Your task to perform on an android device: Show me popular games on the Play Store Image 0: 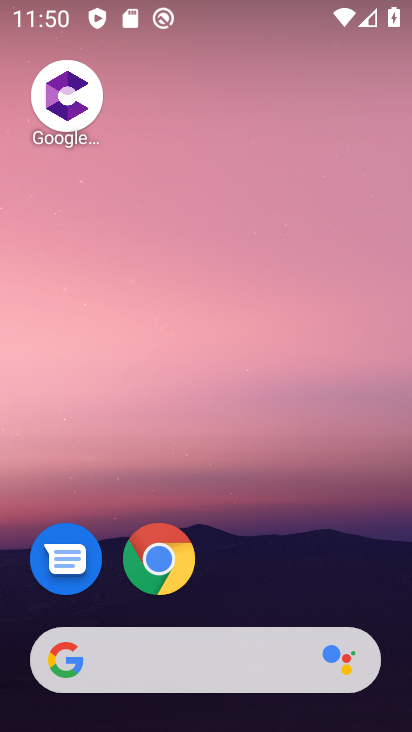
Step 0: drag from (206, 606) to (263, 69)
Your task to perform on an android device: Show me popular games on the Play Store Image 1: 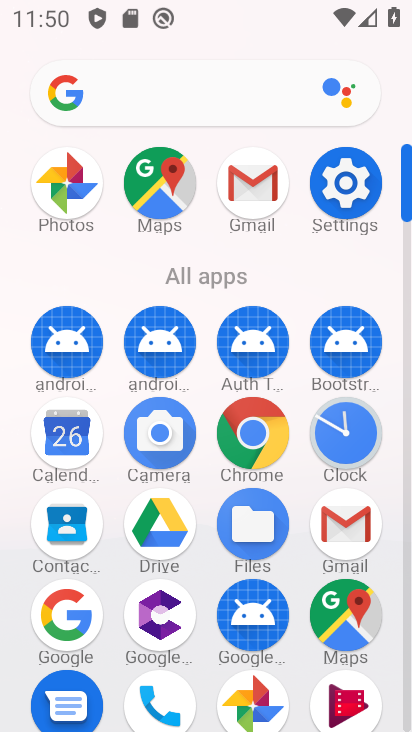
Step 1: drag from (188, 581) to (267, 107)
Your task to perform on an android device: Show me popular games on the Play Store Image 2: 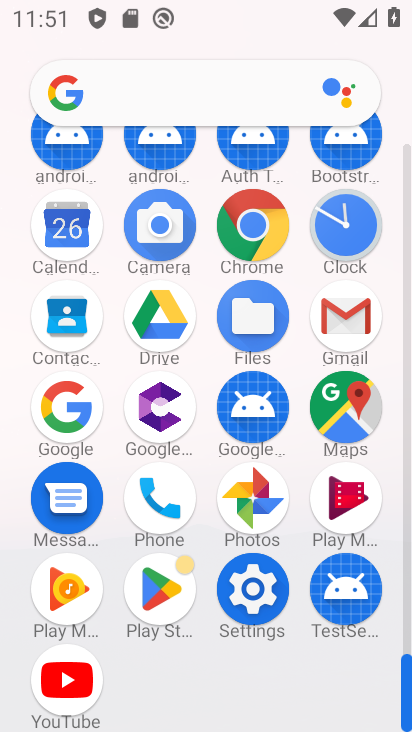
Step 2: click (158, 610)
Your task to perform on an android device: Show me popular games on the Play Store Image 3: 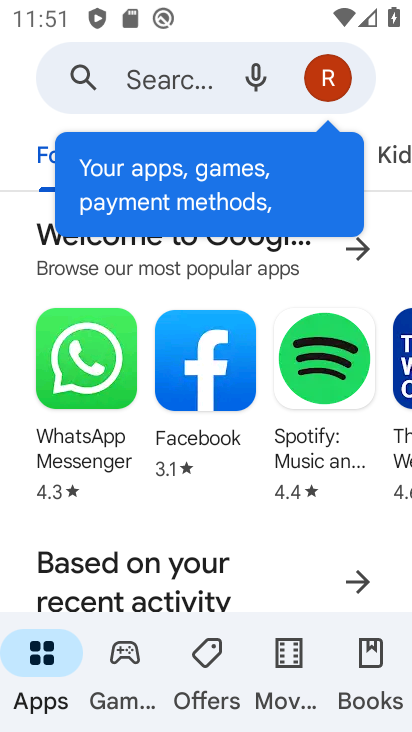
Step 3: click (117, 670)
Your task to perform on an android device: Show me popular games on the Play Store Image 4: 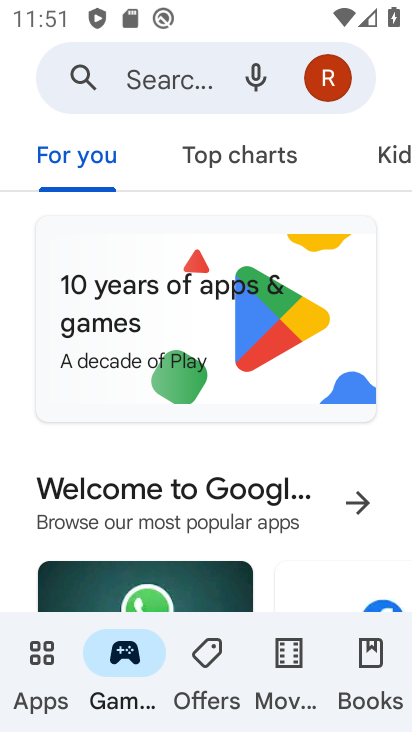
Step 4: drag from (160, 580) to (281, 103)
Your task to perform on an android device: Show me popular games on the Play Store Image 5: 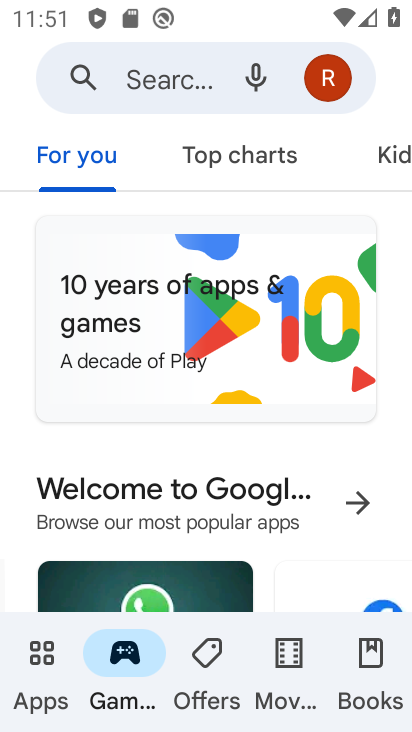
Step 5: drag from (173, 565) to (307, 52)
Your task to perform on an android device: Show me popular games on the Play Store Image 6: 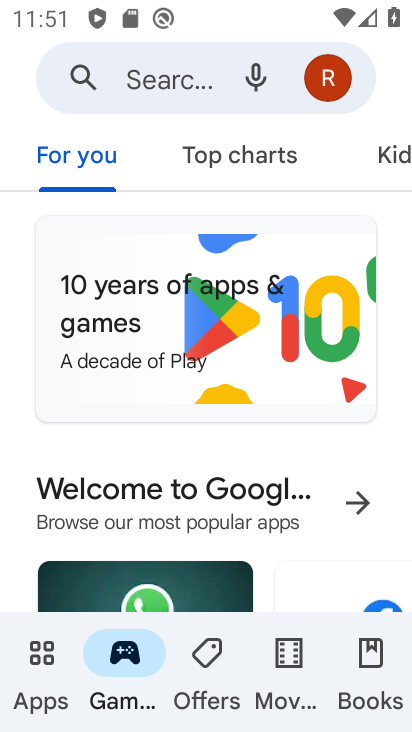
Step 6: drag from (349, 558) to (397, 92)
Your task to perform on an android device: Show me popular games on the Play Store Image 7: 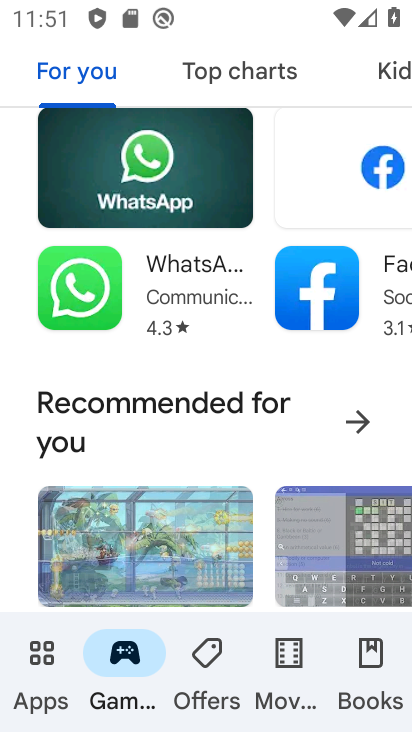
Step 7: drag from (277, 556) to (382, 20)
Your task to perform on an android device: Show me popular games on the Play Store Image 8: 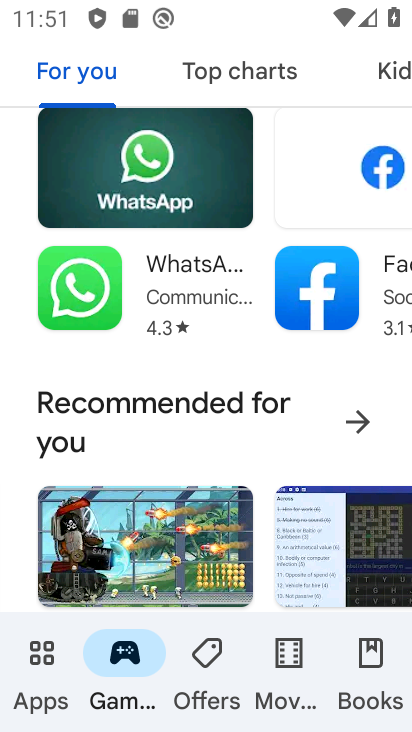
Step 8: drag from (19, 554) to (67, 81)
Your task to perform on an android device: Show me popular games on the Play Store Image 9: 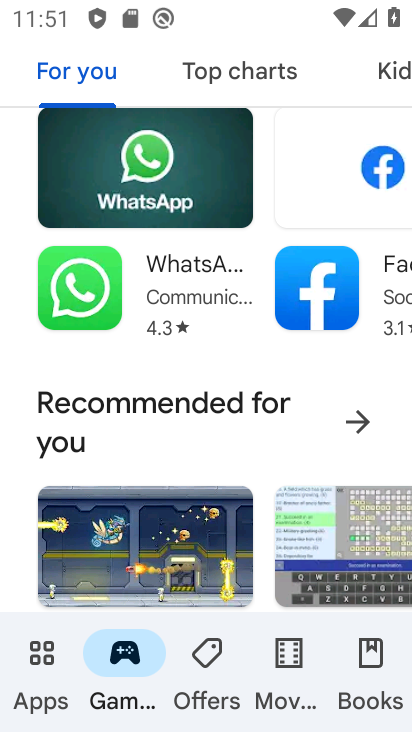
Step 9: drag from (177, 544) to (241, 73)
Your task to perform on an android device: Show me popular games on the Play Store Image 10: 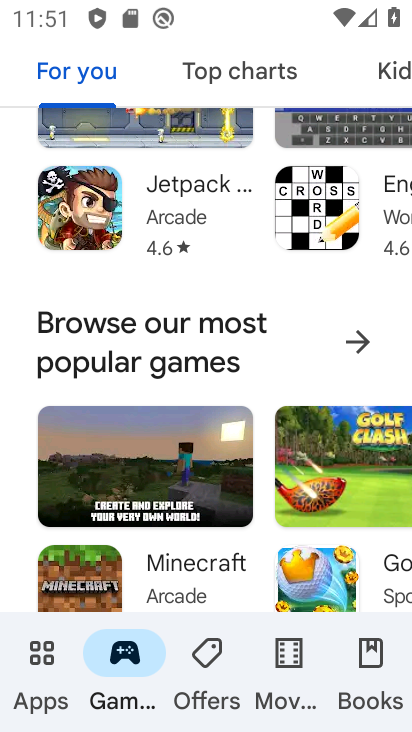
Step 10: click (346, 333)
Your task to perform on an android device: Show me popular games on the Play Store Image 11: 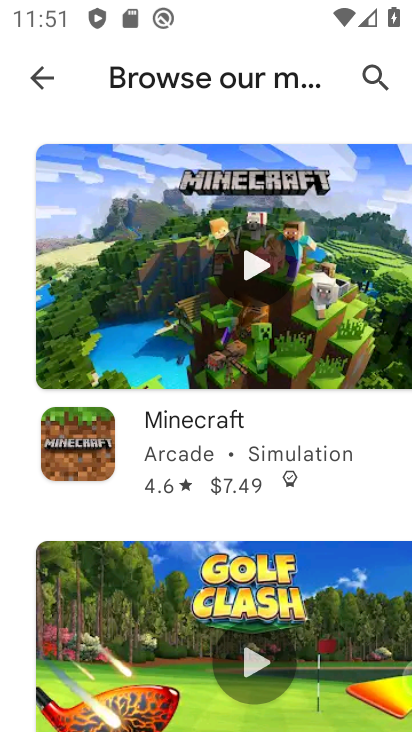
Step 11: task complete